Your task to perform on an android device: turn off location history Image 0: 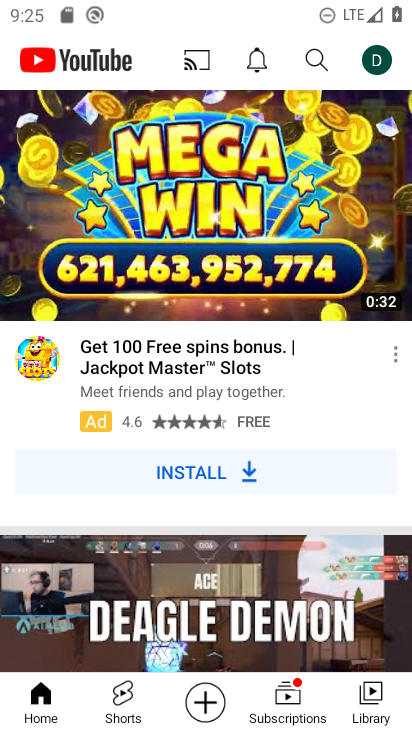
Step 0: press home button
Your task to perform on an android device: turn off location history Image 1: 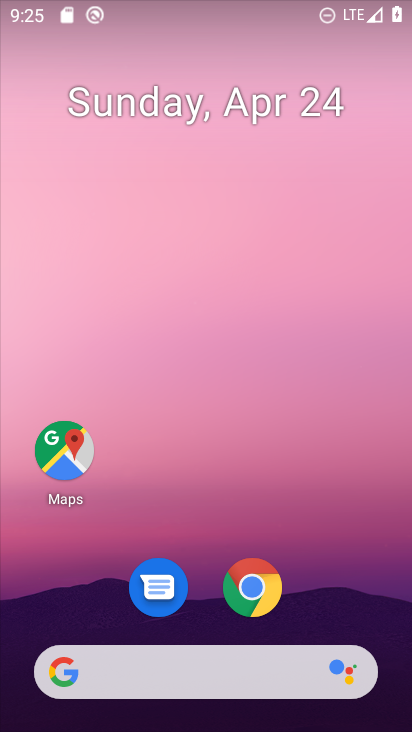
Step 1: drag from (349, 539) to (281, 1)
Your task to perform on an android device: turn off location history Image 2: 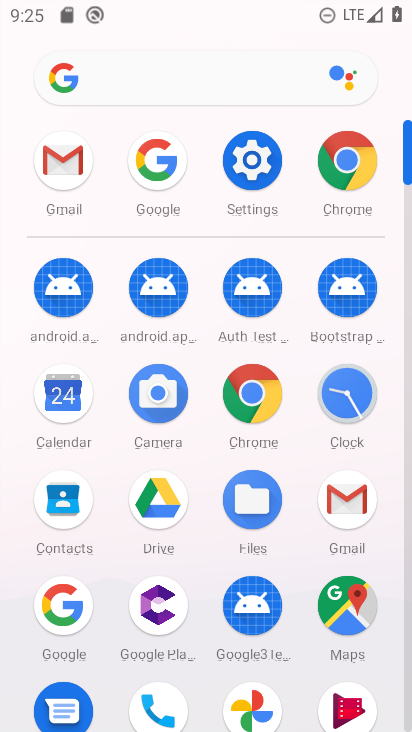
Step 2: click (269, 181)
Your task to perform on an android device: turn off location history Image 3: 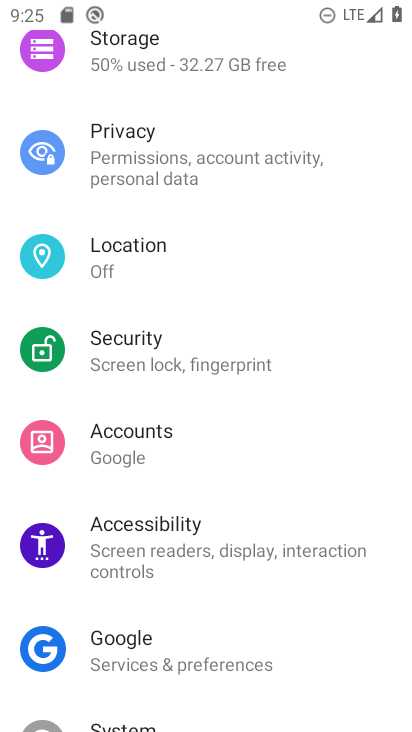
Step 3: drag from (251, 647) to (317, 193)
Your task to perform on an android device: turn off location history Image 4: 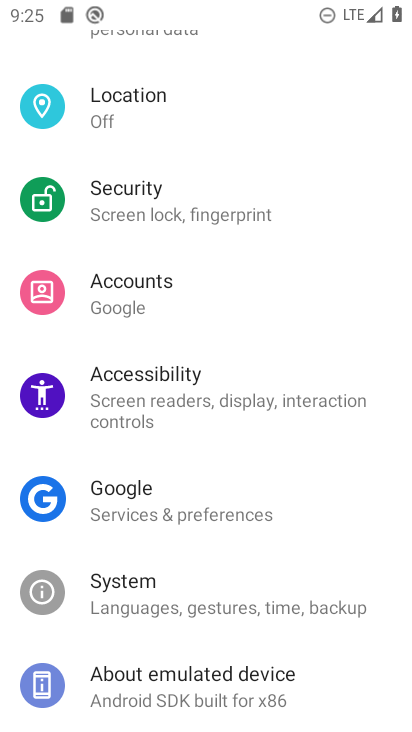
Step 4: click (157, 105)
Your task to perform on an android device: turn off location history Image 5: 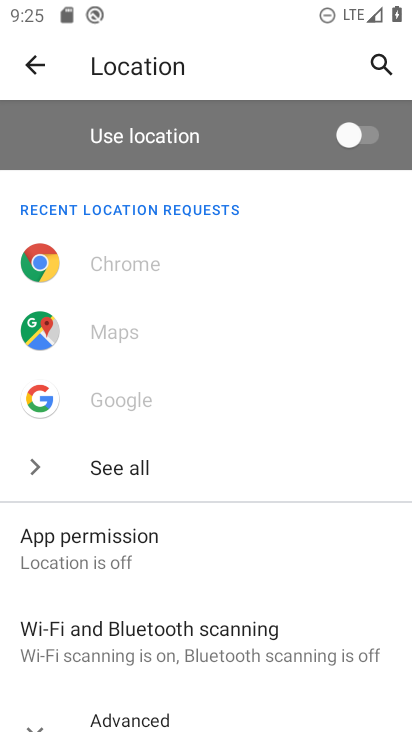
Step 5: drag from (207, 608) to (282, 217)
Your task to perform on an android device: turn off location history Image 6: 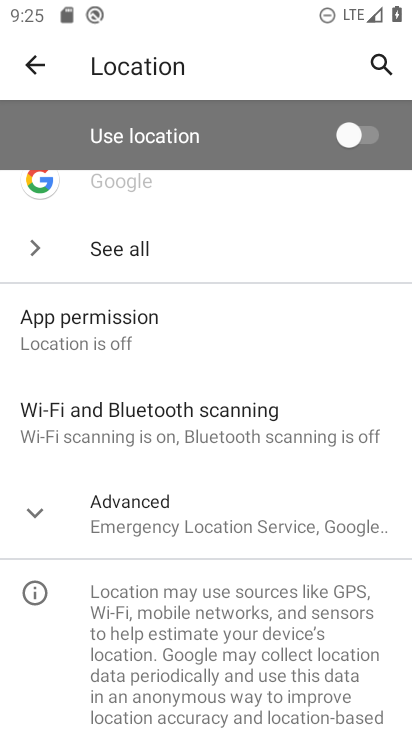
Step 6: click (116, 490)
Your task to perform on an android device: turn off location history Image 7: 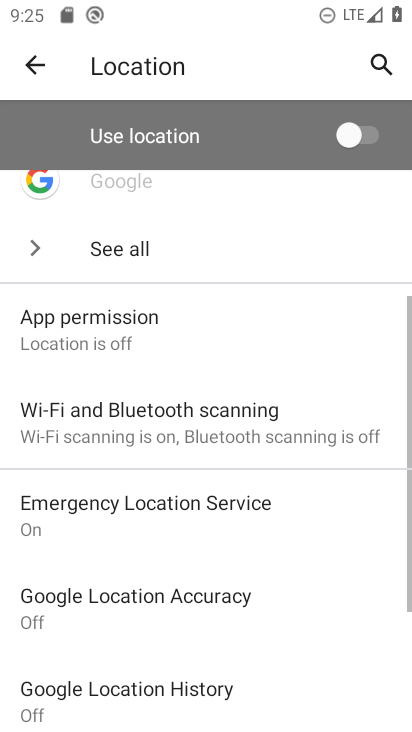
Step 7: task complete